Your task to perform on an android device: change text size in settings app Image 0: 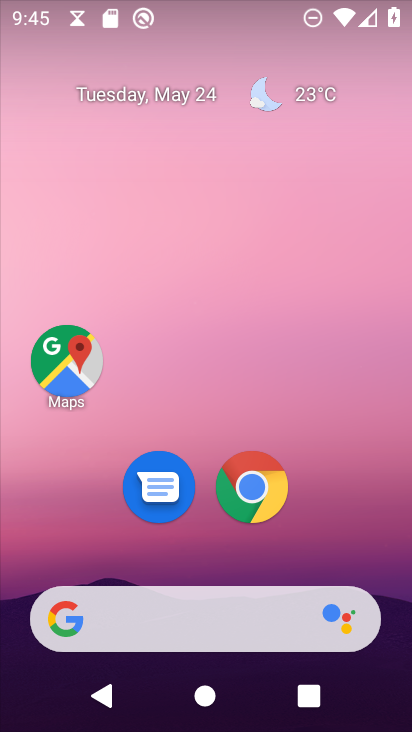
Step 0: press home button
Your task to perform on an android device: change text size in settings app Image 1: 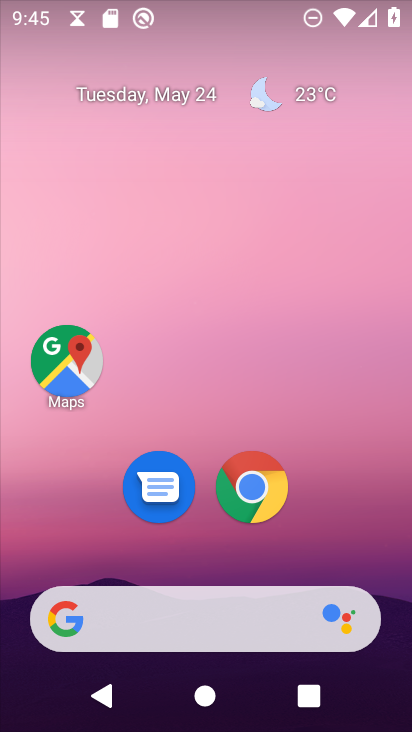
Step 1: drag from (21, 643) to (276, 126)
Your task to perform on an android device: change text size in settings app Image 2: 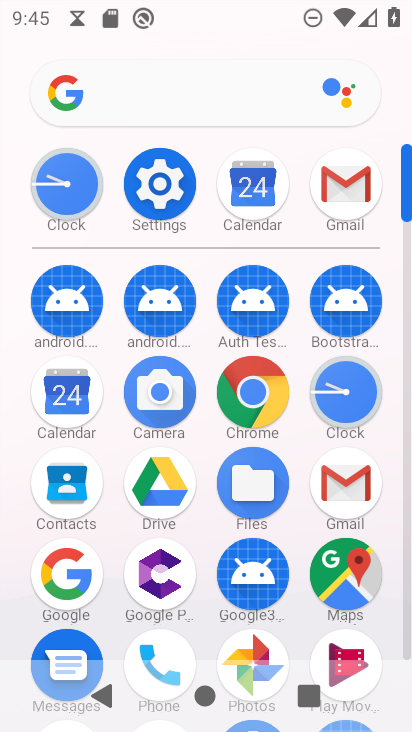
Step 2: click (146, 193)
Your task to perform on an android device: change text size in settings app Image 3: 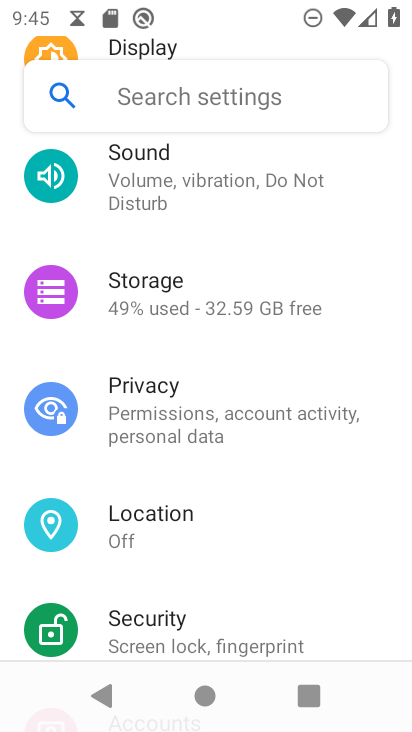
Step 3: drag from (136, 490) to (343, 49)
Your task to perform on an android device: change text size in settings app Image 4: 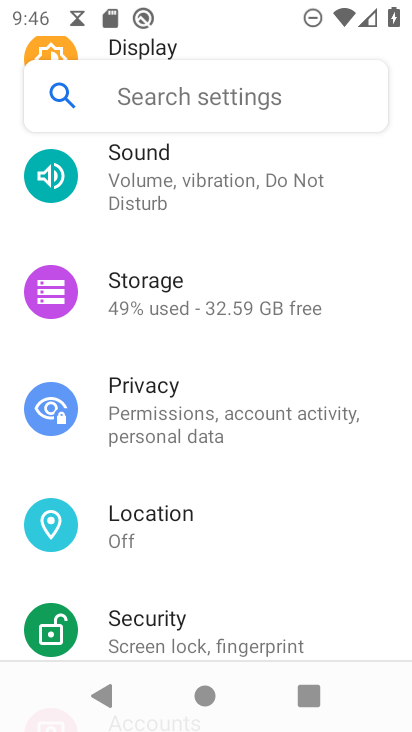
Step 4: drag from (8, 624) to (271, 124)
Your task to perform on an android device: change text size in settings app Image 5: 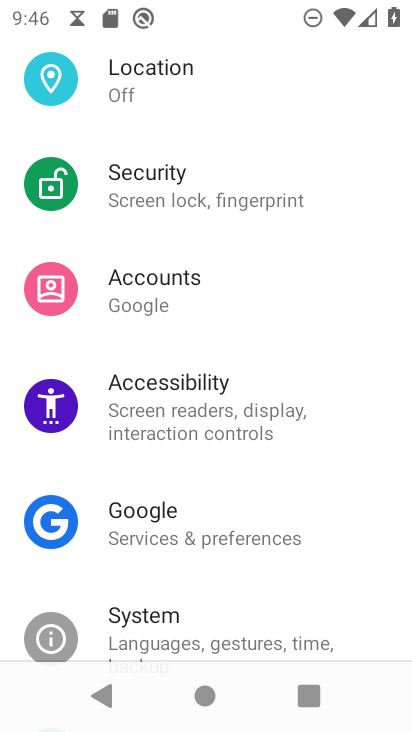
Step 5: drag from (118, 626) to (291, 328)
Your task to perform on an android device: change text size in settings app Image 6: 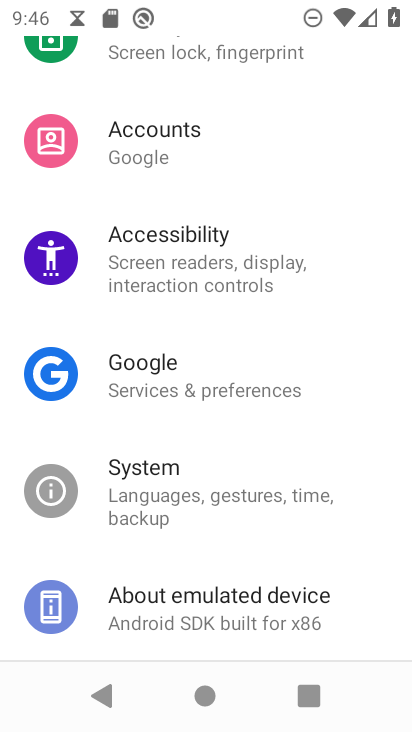
Step 6: drag from (290, 59) to (160, 564)
Your task to perform on an android device: change text size in settings app Image 7: 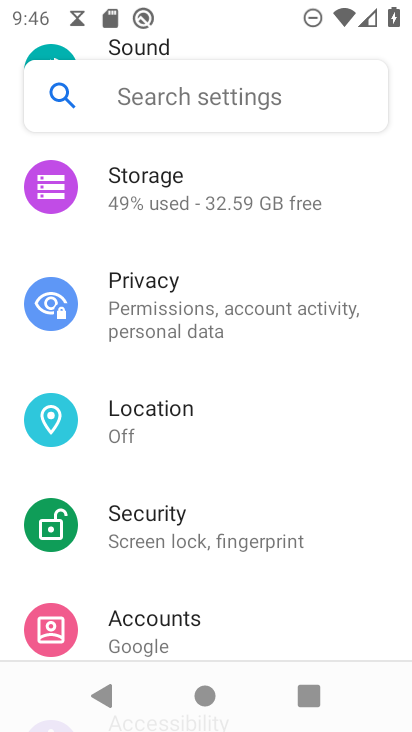
Step 7: drag from (289, 231) to (196, 545)
Your task to perform on an android device: change text size in settings app Image 8: 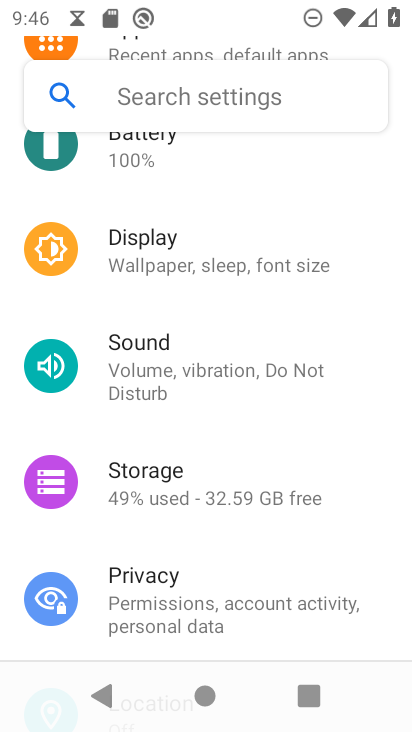
Step 8: click (247, 257)
Your task to perform on an android device: change text size in settings app Image 9: 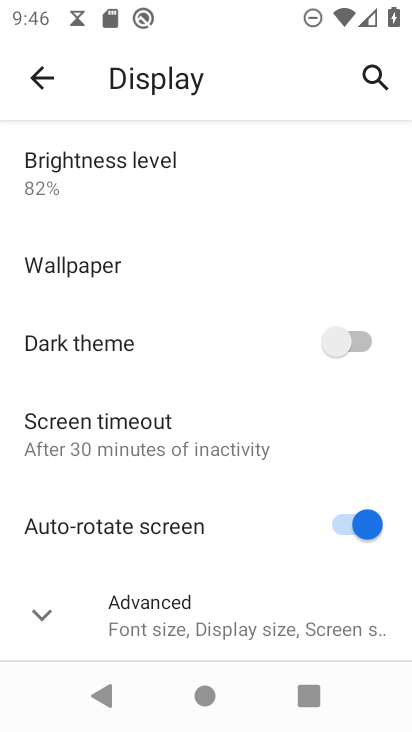
Step 9: click (212, 634)
Your task to perform on an android device: change text size in settings app Image 10: 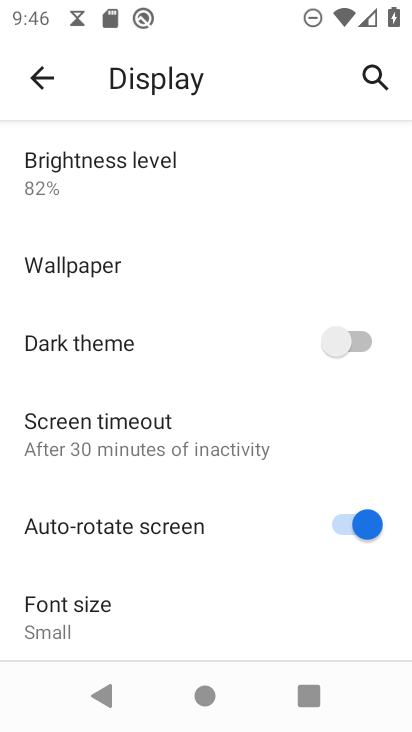
Step 10: click (119, 594)
Your task to perform on an android device: change text size in settings app Image 11: 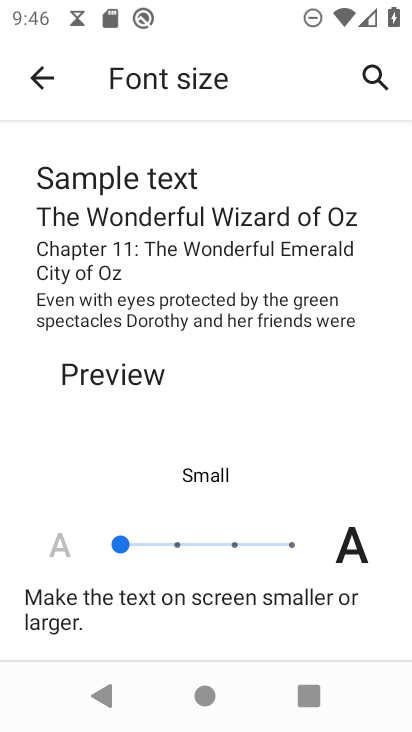
Step 11: click (174, 548)
Your task to perform on an android device: change text size in settings app Image 12: 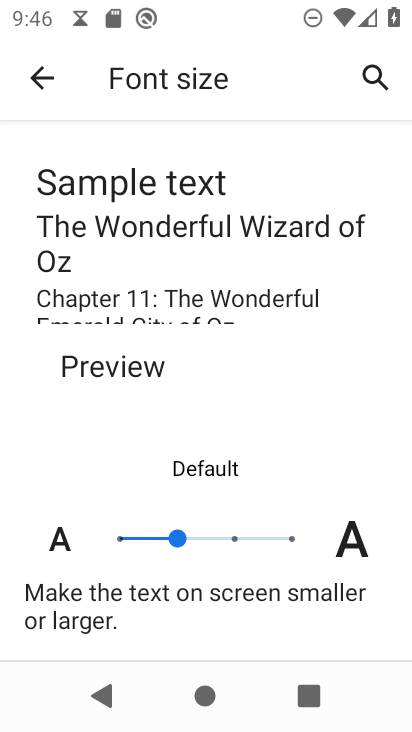
Step 12: task complete